Your task to perform on an android device: Turn off the flashlight Image 0: 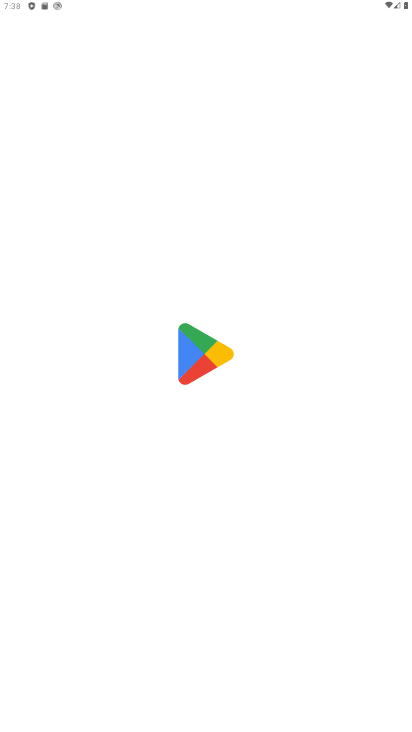
Step 0: drag from (178, 684) to (174, 463)
Your task to perform on an android device: Turn off the flashlight Image 1: 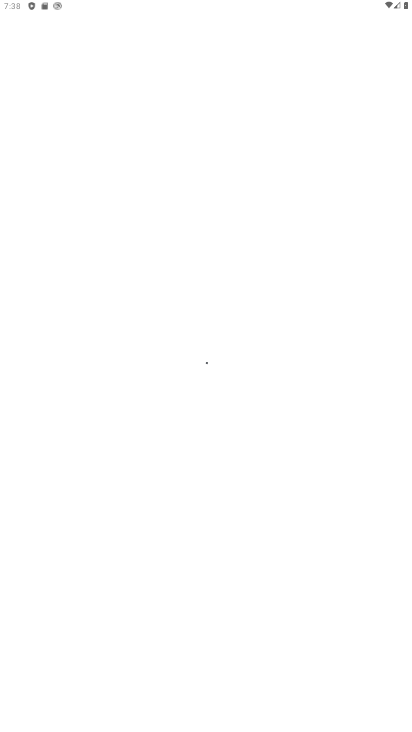
Step 1: press home button
Your task to perform on an android device: Turn off the flashlight Image 2: 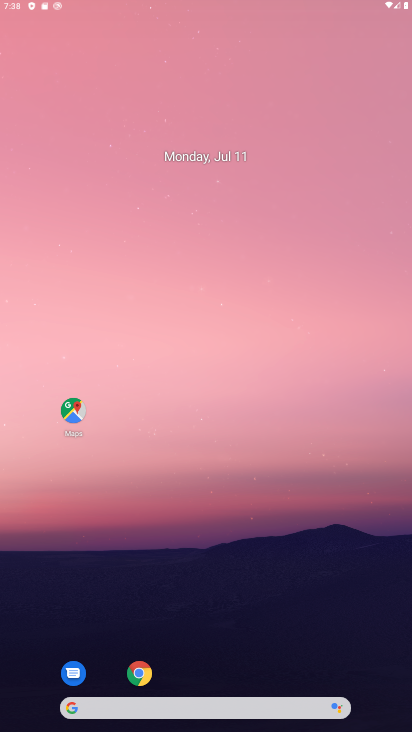
Step 2: drag from (202, 0) to (218, 559)
Your task to perform on an android device: Turn off the flashlight Image 3: 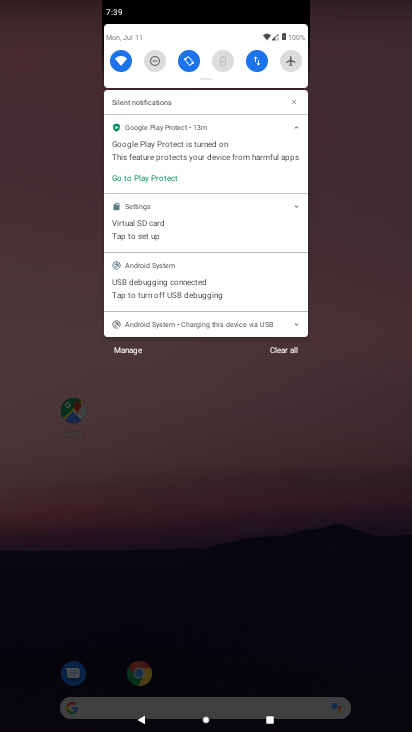
Step 3: drag from (172, 61) to (202, 504)
Your task to perform on an android device: Turn off the flashlight Image 4: 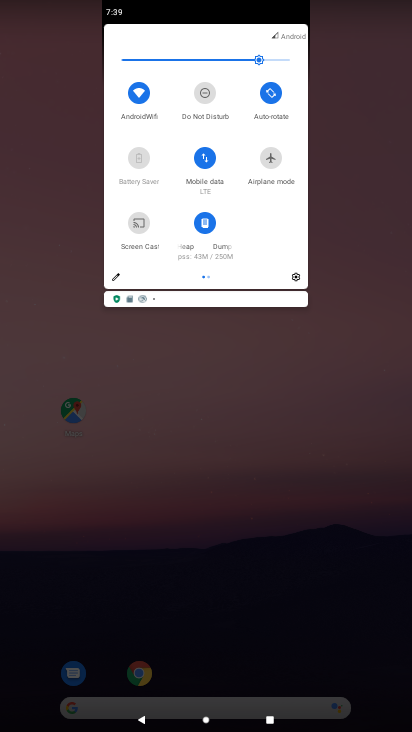
Step 4: drag from (235, 230) to (9, 306)
Your task to perform on an android device: Turn off the flashlight Image 5: 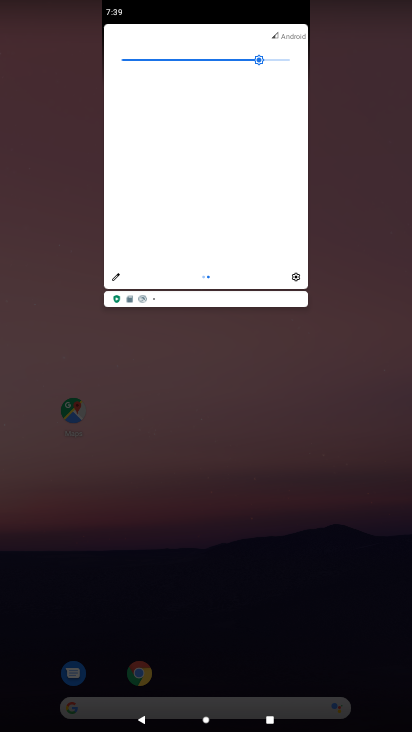
Step 5: click (116, 277)
Your task to perform on an android device: Turn off the flashlight Image 6: 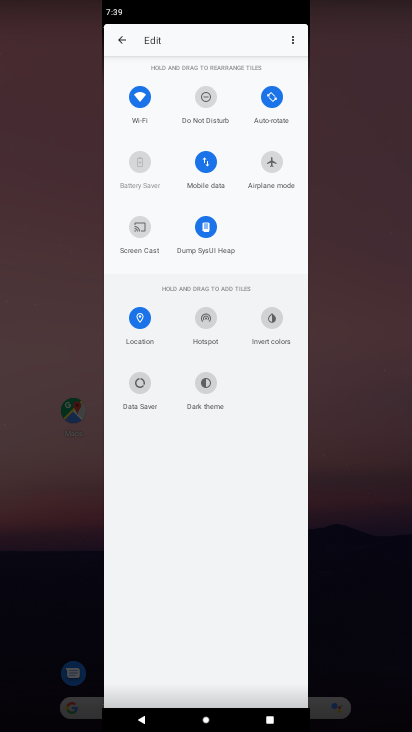
Step 6: task complete